Your task to perform on an android device: clear all cookies in the chrome app Image 0: 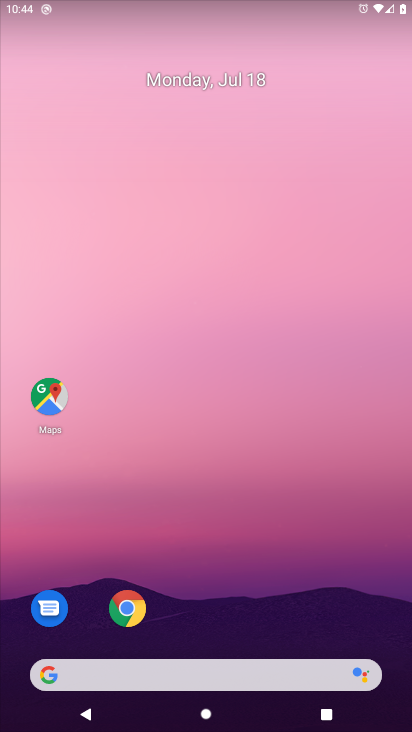
Step 0: drag from (85, 586) to (216, 22)
Your task to perform on an android device: clear all cookies in the chrome app Image 1: 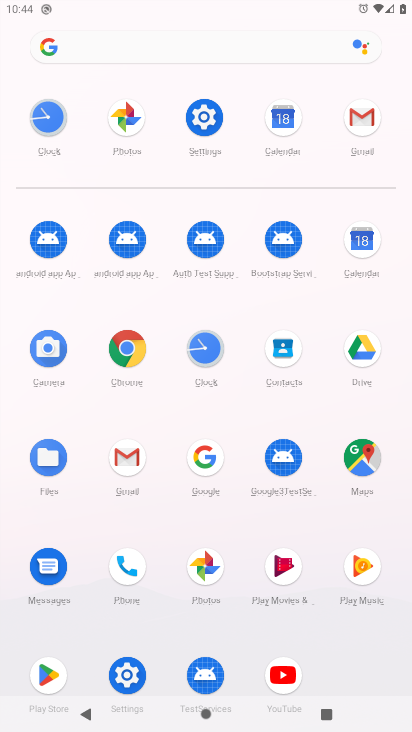
Step 1: click (116, 462)
Your task to perform on an android device: clear all cookies in the chrome app Image 2: 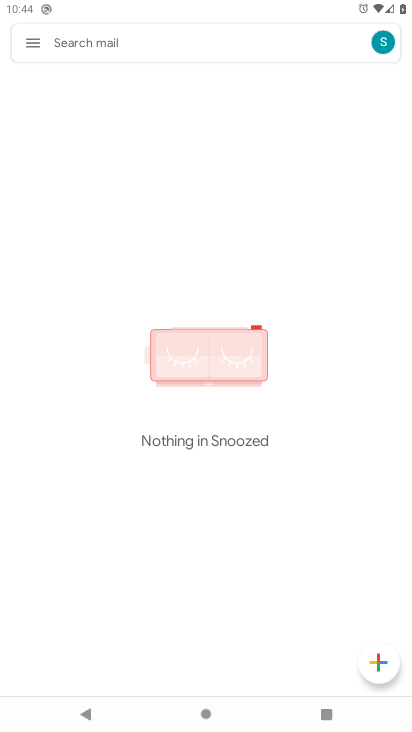
Step 2: press home button
Your task to perform on an android device: clear all cookies in the chrome app Image 3: 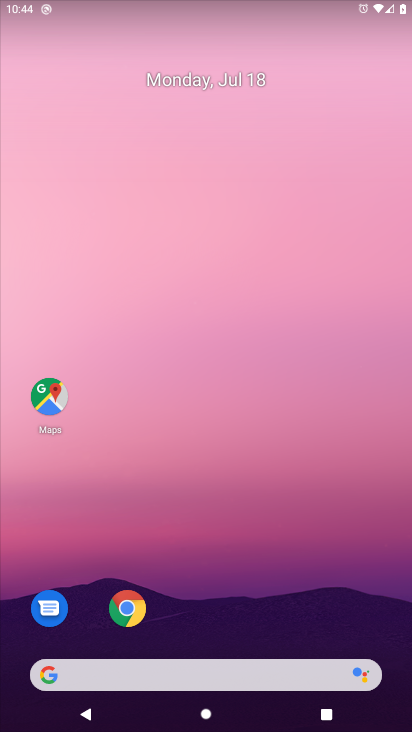
Step 3: click (123, 616)
Your task to perform on an android device: clear all cookies in the chrome app Image 4: 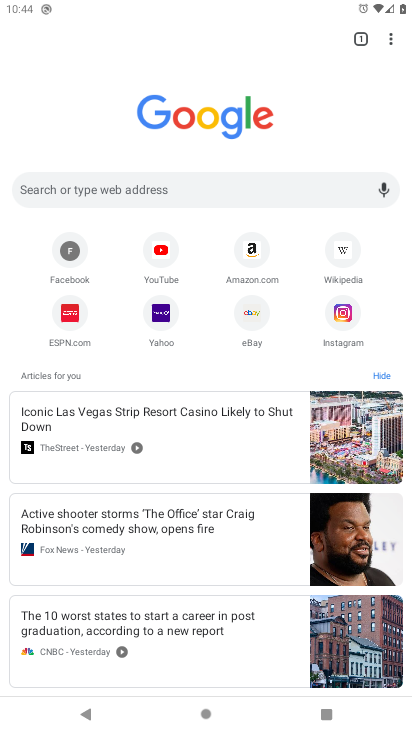
Step 4: click (391, 38)
Your task to perform on an android device: clear all cookies in the chrome app Image 5: 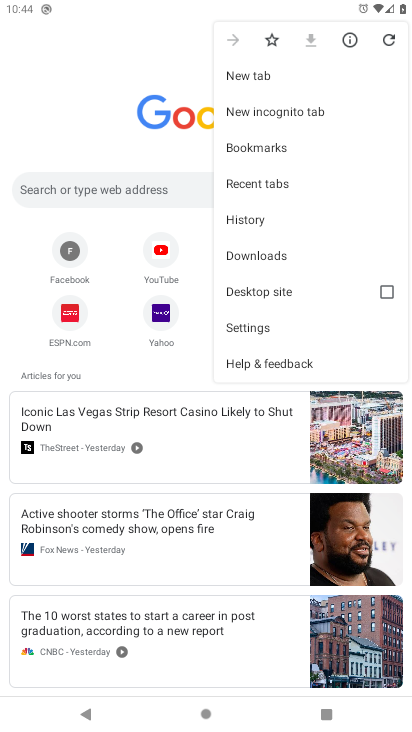
Step 5: click (245, 216)
Your task to perform on an android device: clear all cookies in the chrome app Image 6: 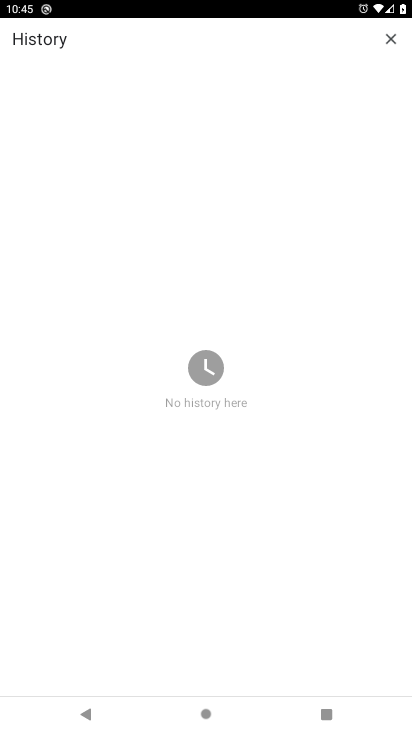
Step 6: task complete